Your task to perform on an android device: empty trash in google photos Image 0: 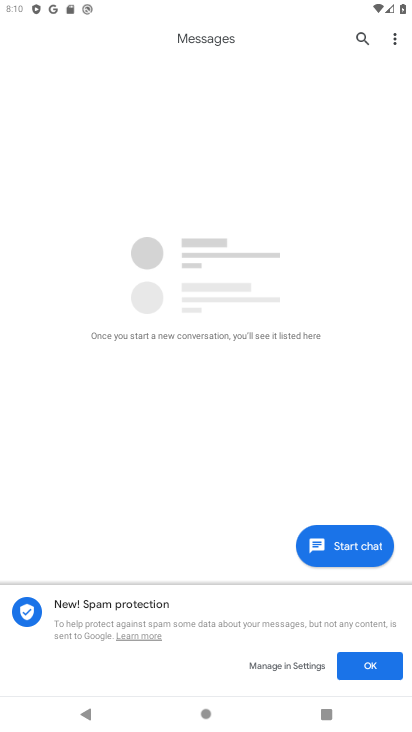
Step 0: press home button
Your task to perform on an android device: empty trash in google photos Image 1: 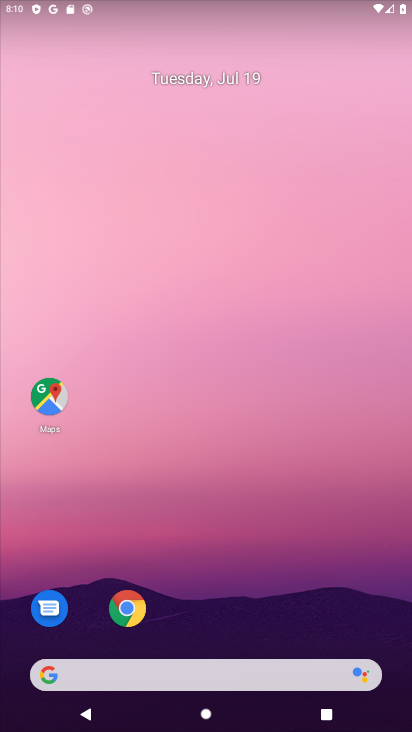
Step 1: drag from (388, 673) to (272, 122)
Your task to perform on an android device: empty trash in google photos Image 2: 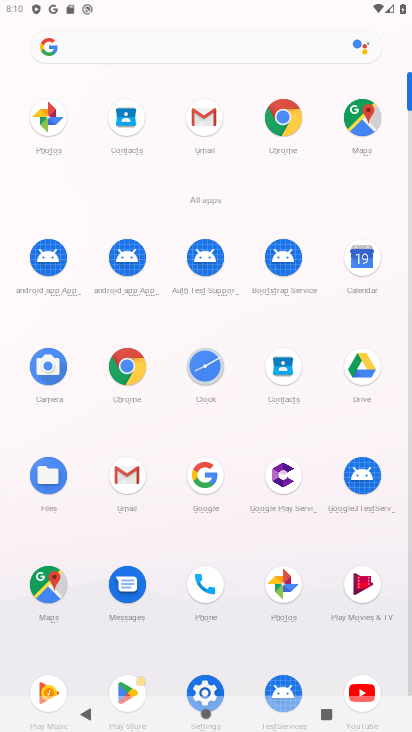
Step 2: click (278, 588)
Your task to perform on an android device: empty trash in google photos Image 3: 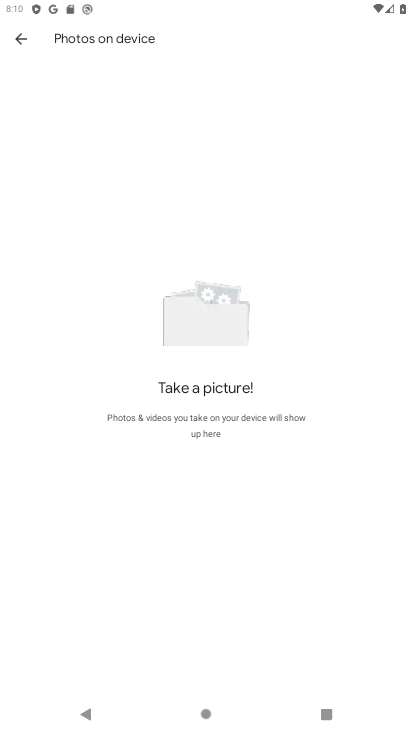
Step 3: click (19, 33)
Your task to perform on an android device: empty trash in google photos Image 4: 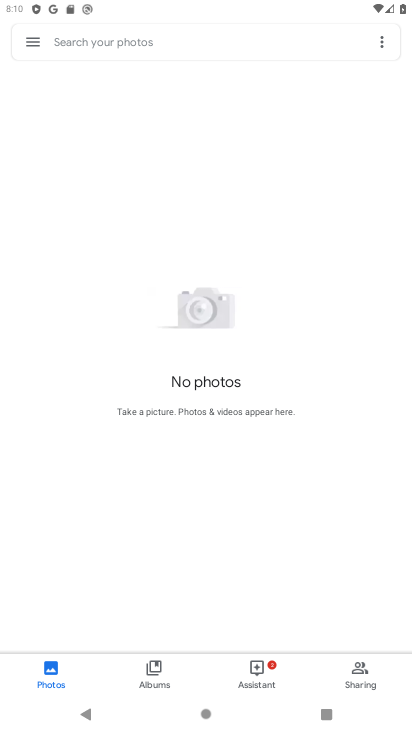
Step 4: click (30, 37)
Your task to perform on an android device: empty trash in google photos Image 5: 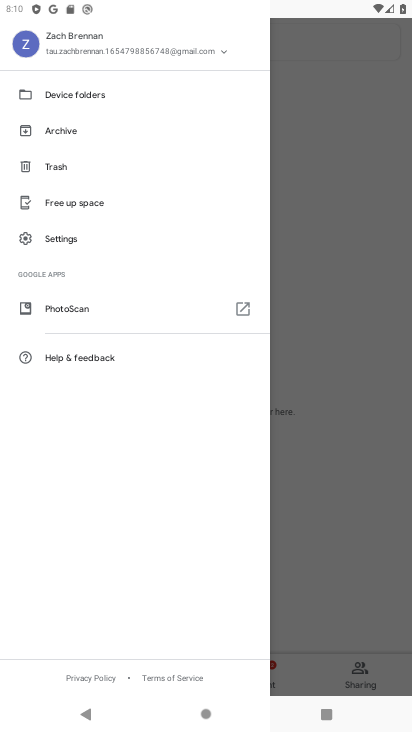
Step 5: click (47, 155)
Your task to perform on an android device: empty trash in google photos Image 6: 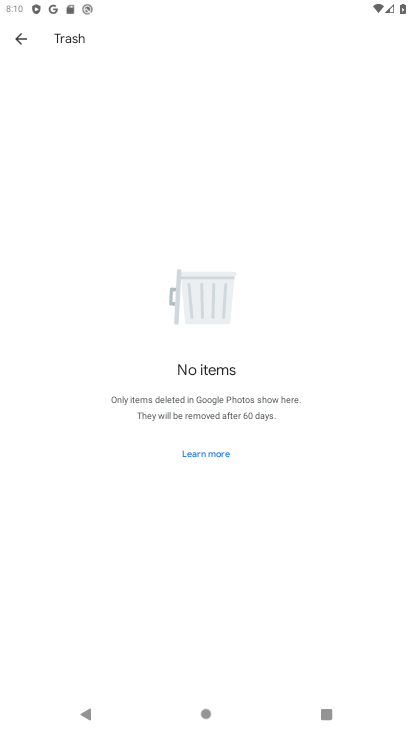
Step 6: task complete